Your task to perform on an android device: Go to Yahoo.com Image 0: 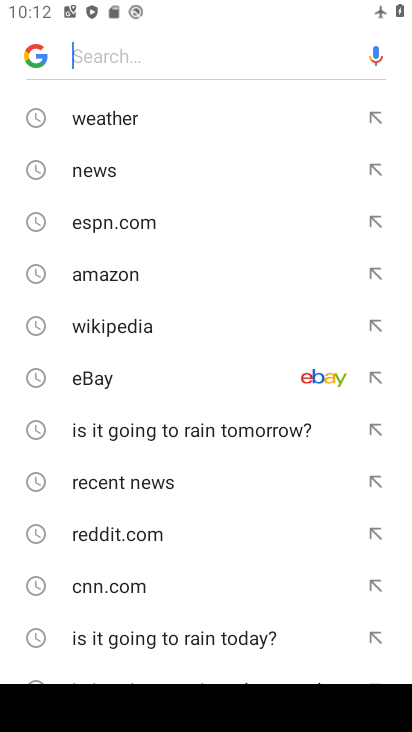
Step 0: press home button
Your task to perform on an android device: Go to Yahoo.com Image 1: 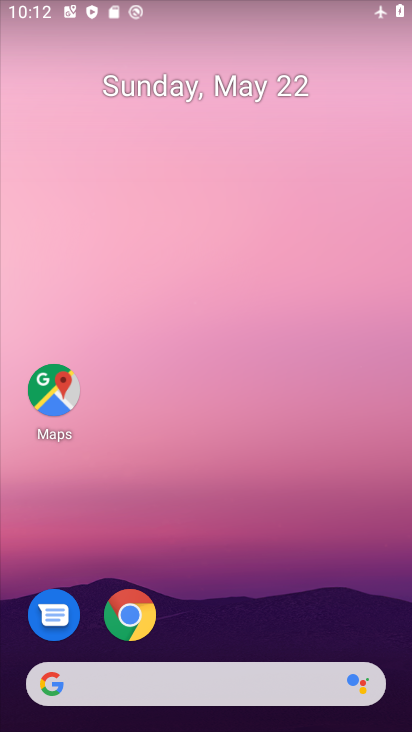
Step 1: click (125, 615)
Your task to perform on an android device: Go to Yahoo.com Image 2: 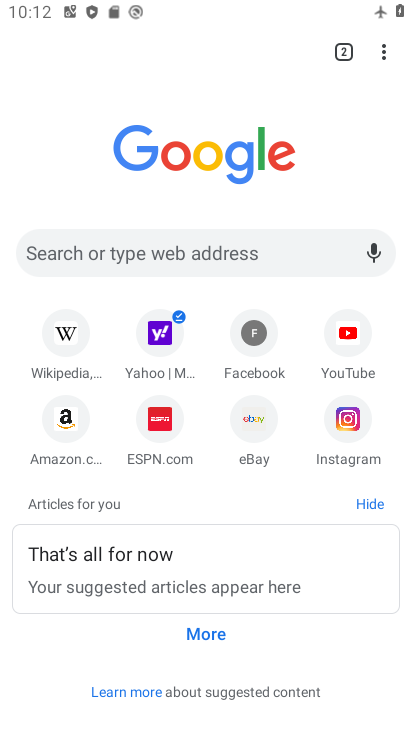
Step 2: click (160, 324)
Your task to perform on an android device: Go to Yahoo.com Image 3: 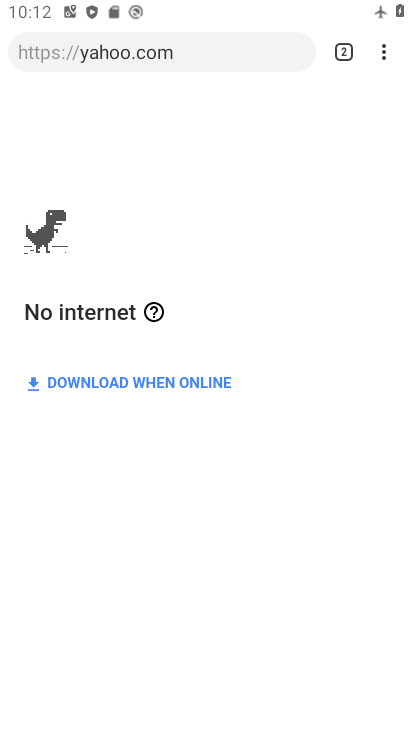
Step 3: task complete